Your task to perform on an android device: turn notification dots off Image 0: 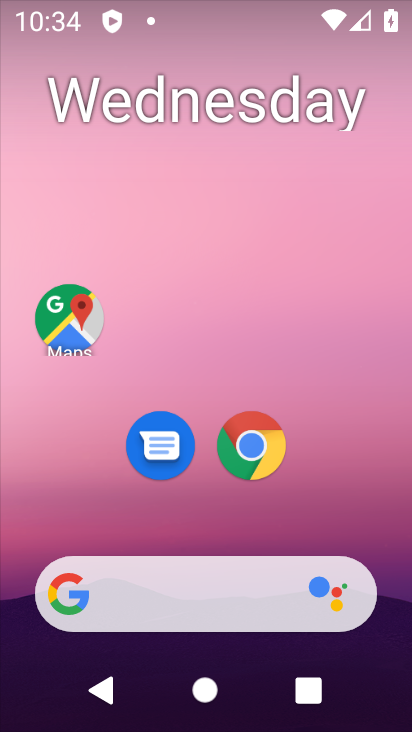
Step 0: drag from (333, 500) to (343, 31)
Your task to perform on an android device: turn notification dots off Image 1: 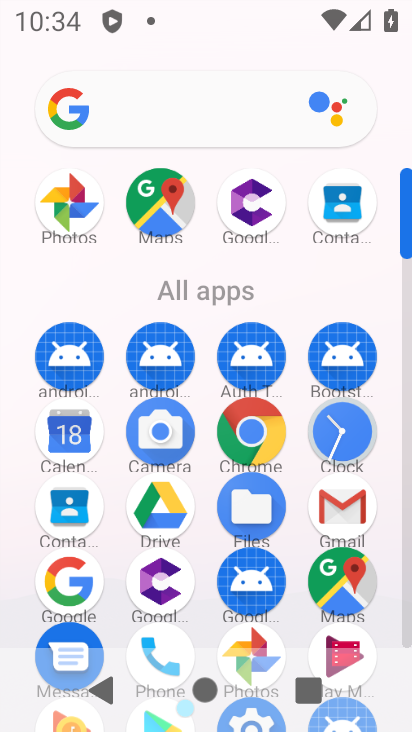
Step 1: drag from (298, 603) to (316, 300)
Your task to perform on an android device: turn notification dots off Image 2: 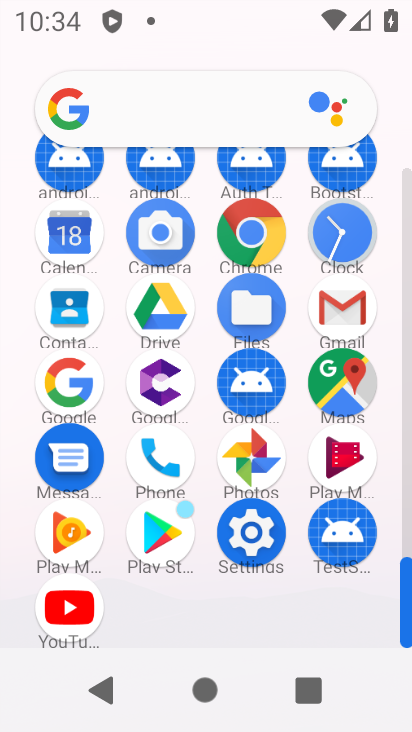
Step 2: click (260, 522)
Your task to perform on an android device: turn notification dots off Image 3: 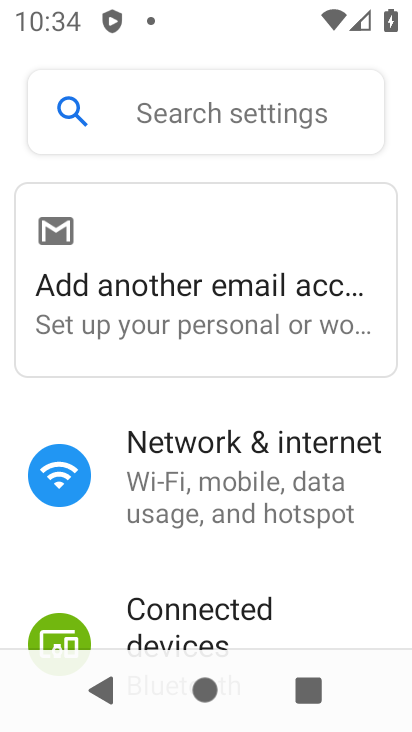
Step 3: drag from (266, 606) to (283, 313)
Your task to perform on an android device: turn notification dots off Image 4: 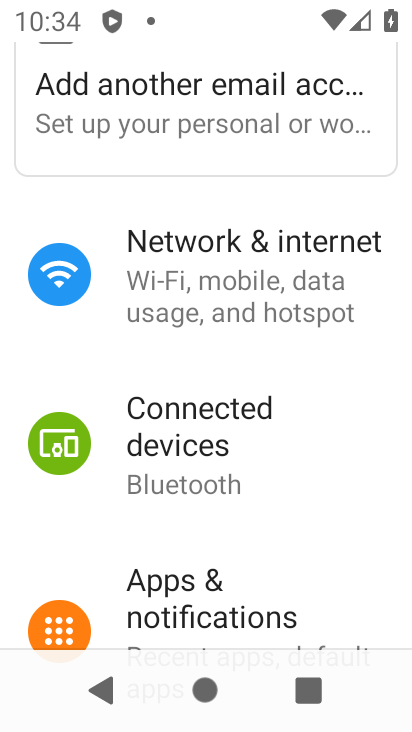
Step 4: click (244, 626)
Your task to perform on an android device: turn notification dots off Image 5: 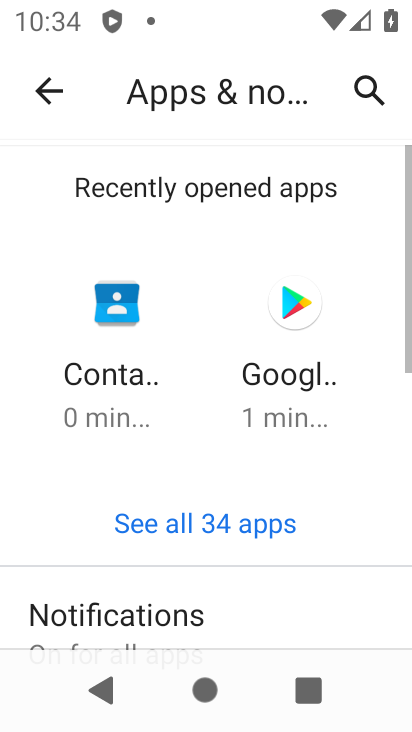
Step 5: drag from (306, 598) to (317, 281)
Your task to perform on an android device: turn notification dots off Image 6: 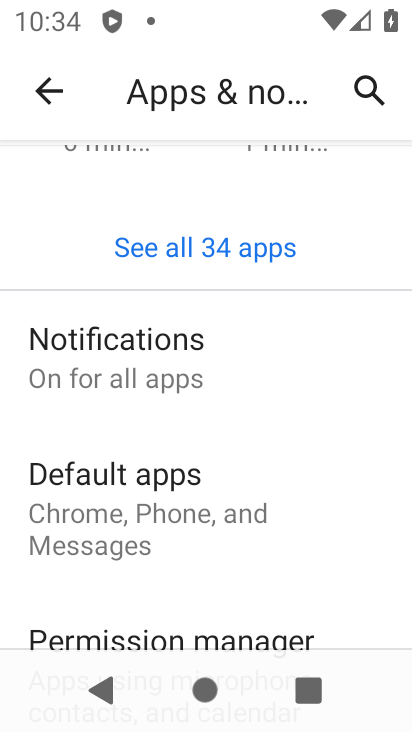
Step 6: click (212, 366)
Your task to perform on an android device: turn notification dots off Image 7: 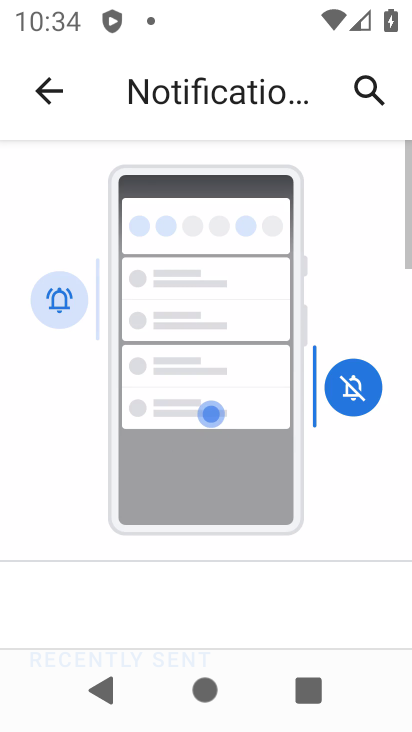
Step 7: drag from (282, 600) to (260, 287)
Your task to perform on an android device: turn notification dots off Image 8: 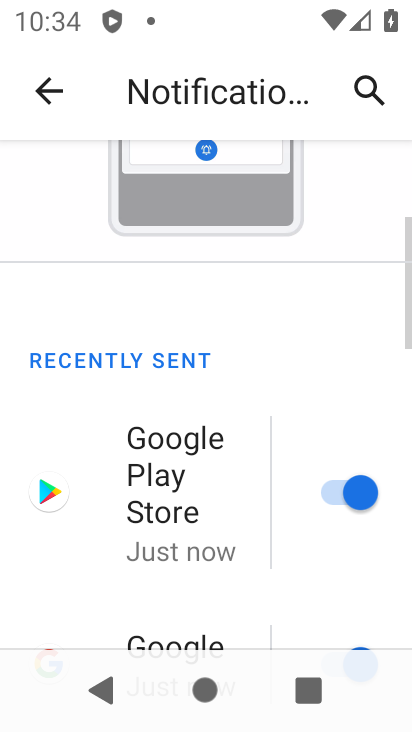
Step 8: drag from (243, 627) to (252, 214)
Your task to perform on an android device: turn notification dots off Image 9: 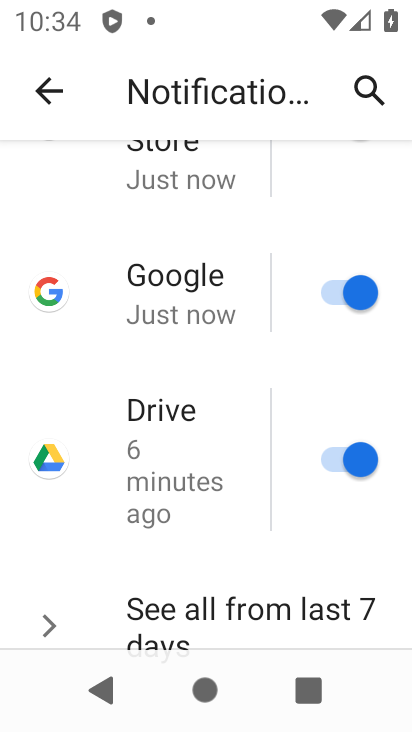
Step 9: drag from (249, 649) to (259, 220)
Your task to perform on an android device: turn notification dots off Image 10: 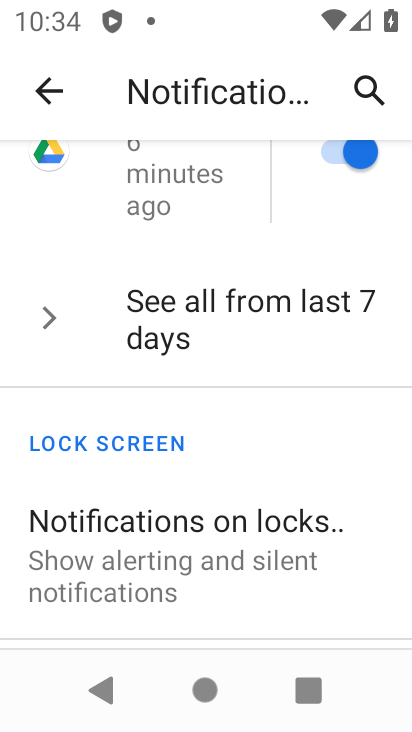
Step 10: drag from (214, 590) to (228, 273)
Your task to perform on an android device: turn notification dots off Image 11: 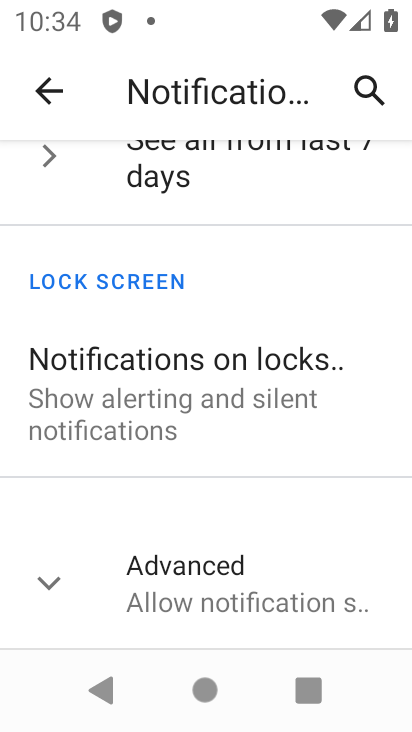
Step 11: click (51, 573)
Your task to perform on an android device: turn notification dots off Image 12: 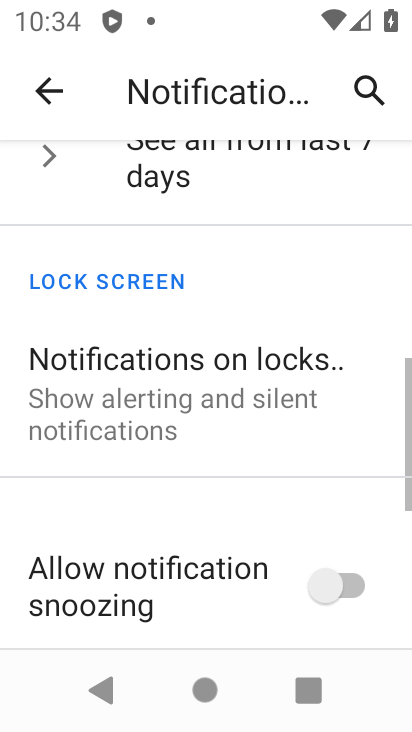
Step 12: drag from (225, 607) to (255, 299)
Your task to perform on an android device: turn notification dots off Image 13: 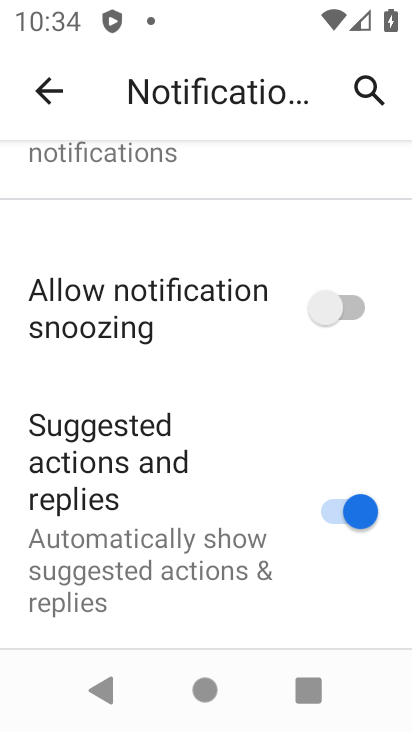
Step 13: drag from (248, 605) to (253, 376)
Your task to perform on an android device: turn notification dots off Image 14: 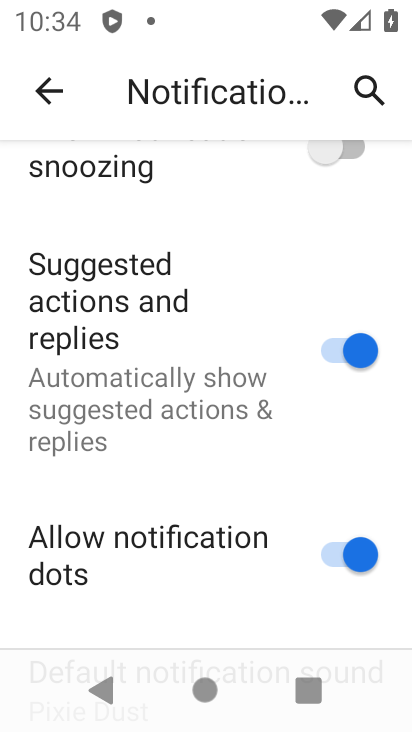
Step 14: click (361, 559)
Your task to perform on an android device: turn notification dots off Image 15: 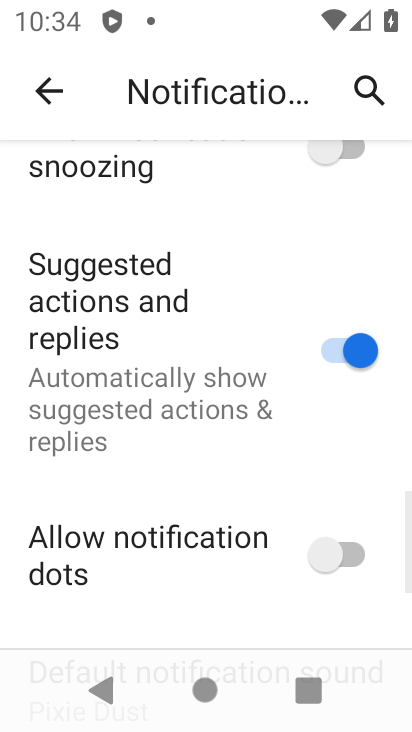
Step 15: task complete